Your task to perform on an android device: Open notification settings Image 0: 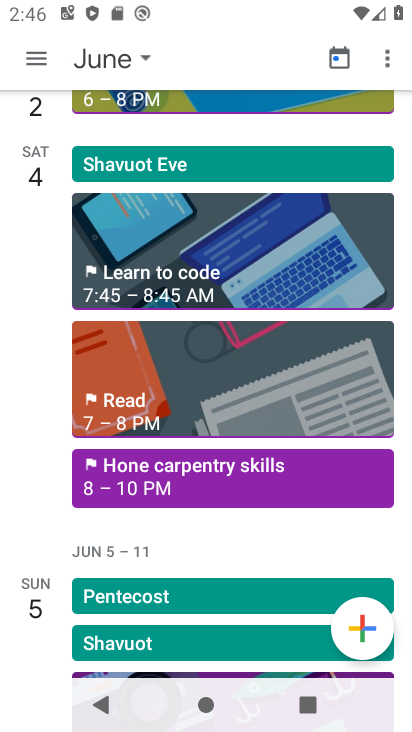
Step 0: press home button
Your task to perform on an android device: Open notification settings Image 1: 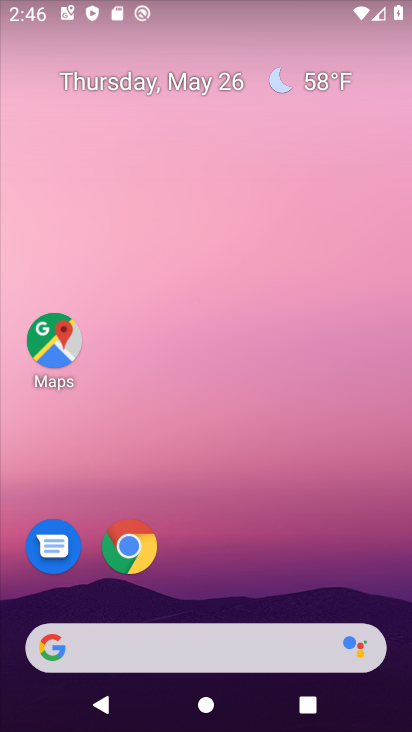
Step 1: drag from (212, 592) to (212, 54)
Your task to perform on an android device: Open notification settings Image 2: 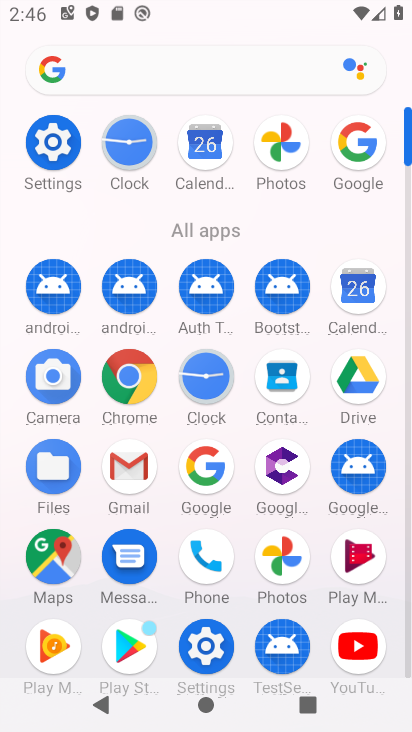
Step 2: click (43, 132)
Your task to perform on an android device: Open notification settings Image 3: 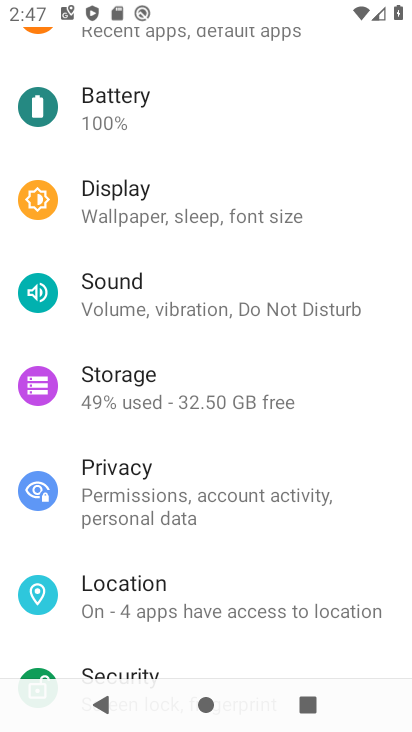
Step 3: drag from (161, 160) to (146, 713)
Your task to perform on an android device: Open notification settings Image 4: 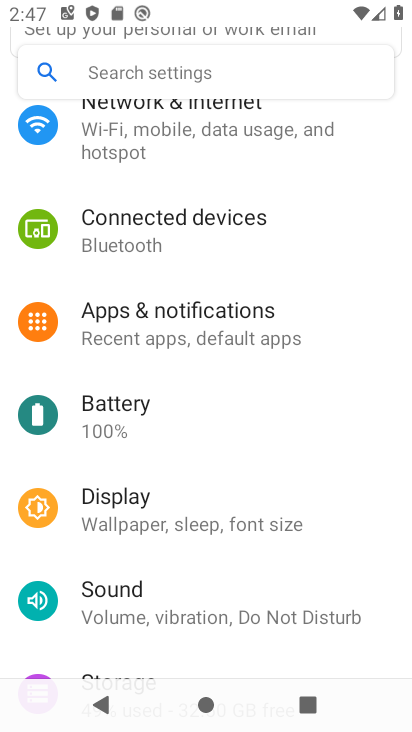
Step 4: click (266, 333)
Your task to perform on an android device: Open notification settings Image 5: 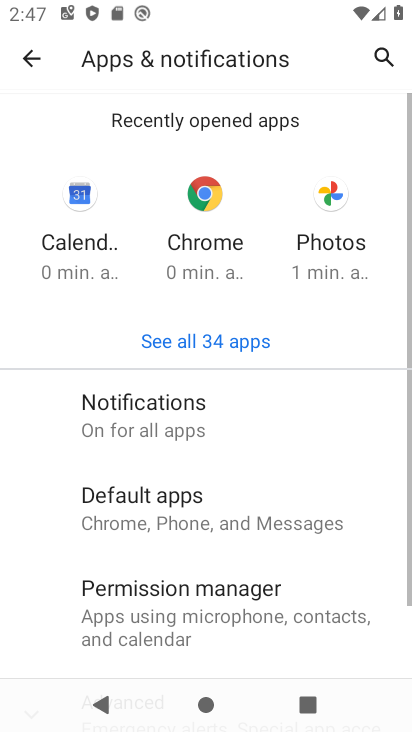
Step 5: click (146, 428)
Your task to perform on an android device: Open notification settings Image 6: 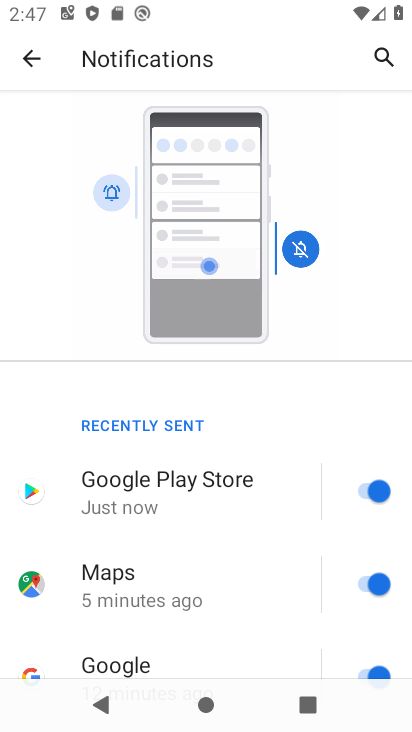
Step 6: drag from (238, 615) to (252, 146)
Your task to perform on an android device: Open notification settings Image 7: 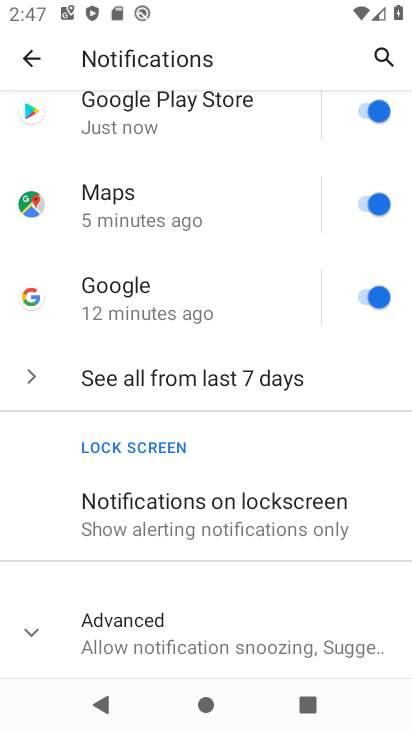
Step 7: click (47, 635)
Your task to perform on an android device: Open notification settings Image 8: 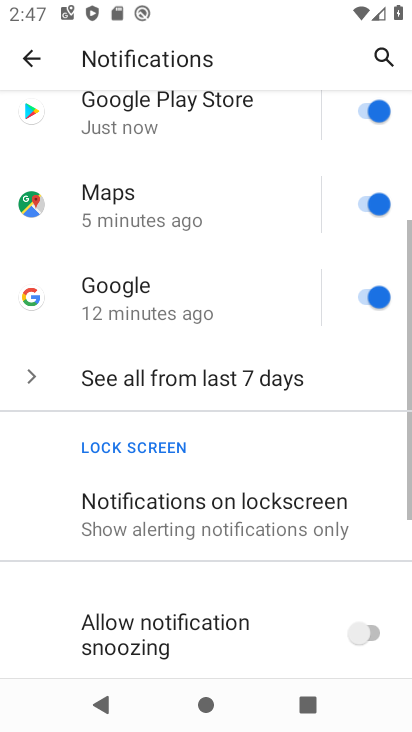
Step 8: task complete